Your task to perform on an android device: Go to ESPN.com Image 0: 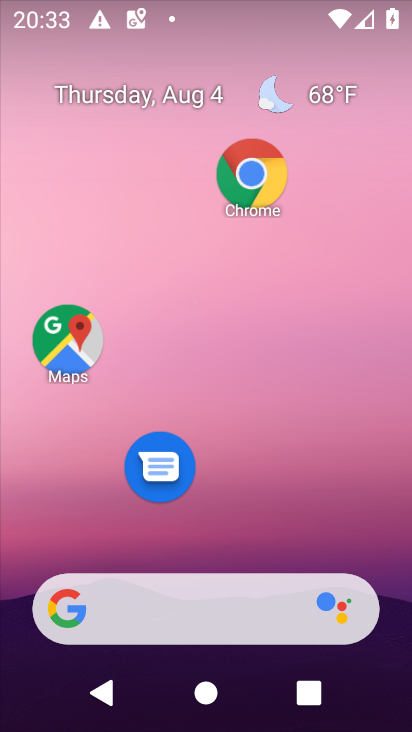
Step 0: drag from (253, 521) to (219, 9)
Your task to perform on an android device: Go to ESPN.com Image 1: 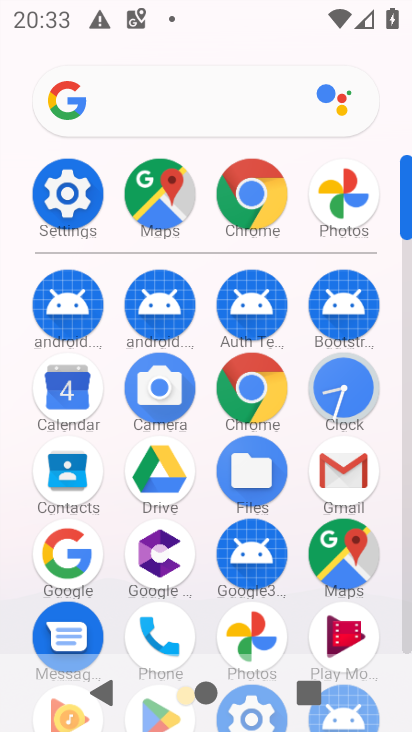
Step 1: click (256, 369)
Your task to perform on an android device: Go to ESPN.com Image 2: 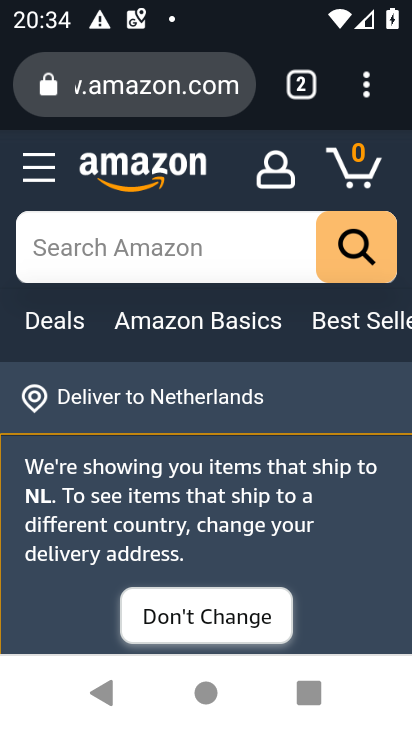
Step 2: click (146, 79)
Your task to perform on an android device: Go to ESPN.com Image 3: 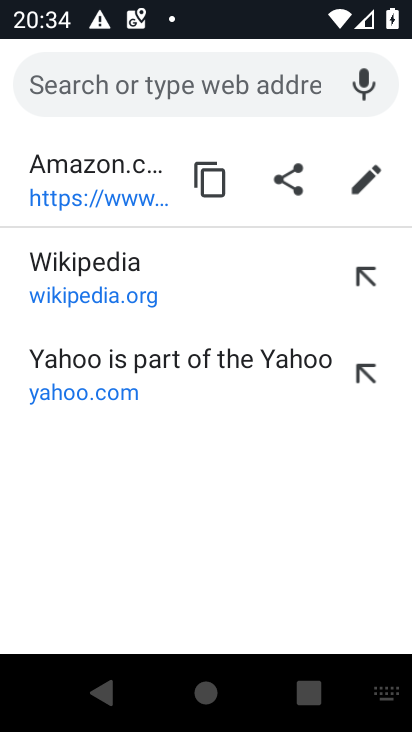
Step 3: type "ESPN.com"
Your task to perform on an android device: Go to ESPN.com Image 4: 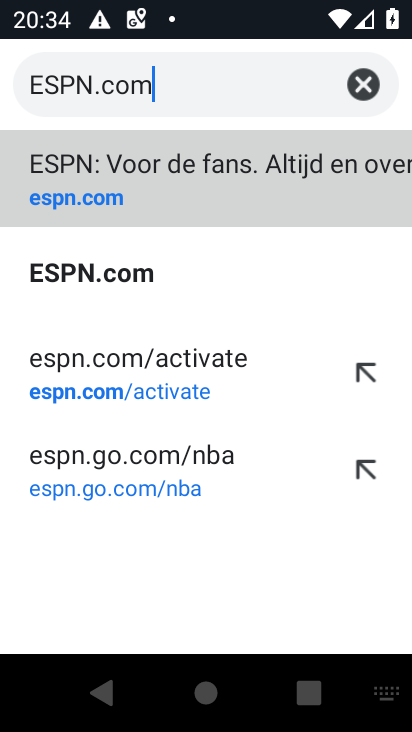
Step 4: click (93, 193)
Your task to perform on an android device: Go to ESPN.com Image 5: 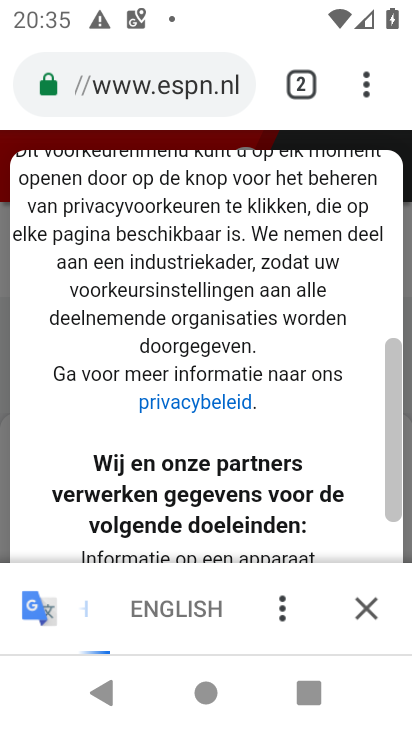
Step 5: drag from (255, 524) to (296, 40)
Your task to perform on an android device: Go to ESPN.com Image 6: 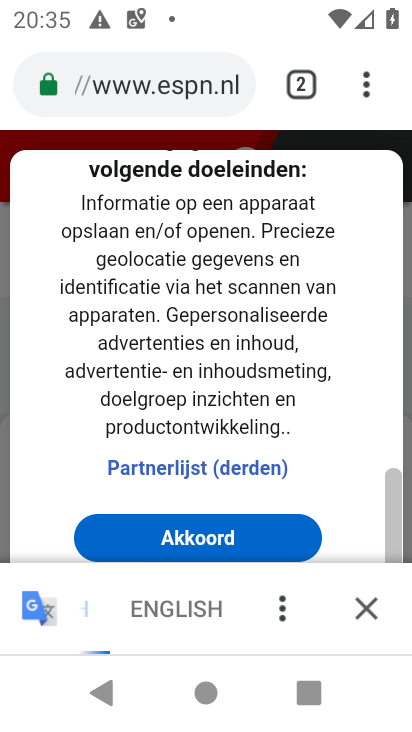
Step 6: click (225, 522)
Your task to perform on an android device: Go to ESPN.com Image 7: 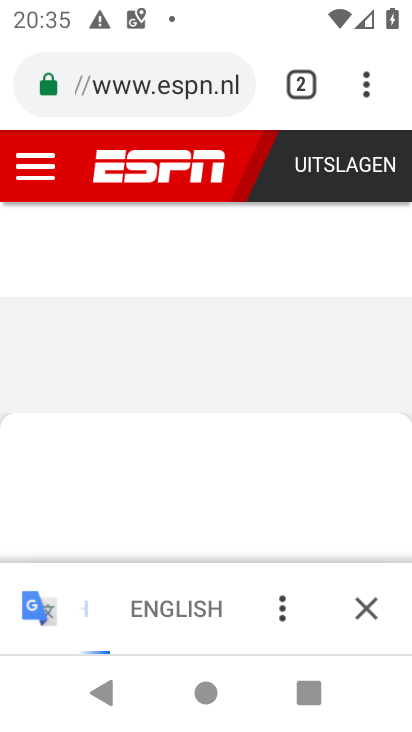
Step 7: task complete